Your task to perform on an android device: change the clock style Image 0: 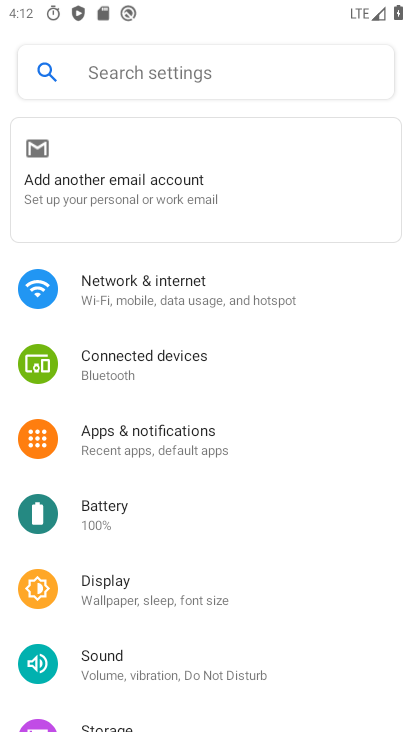
Step 0: press home button
Your task to perform on an android device: change the clock style Image 1: 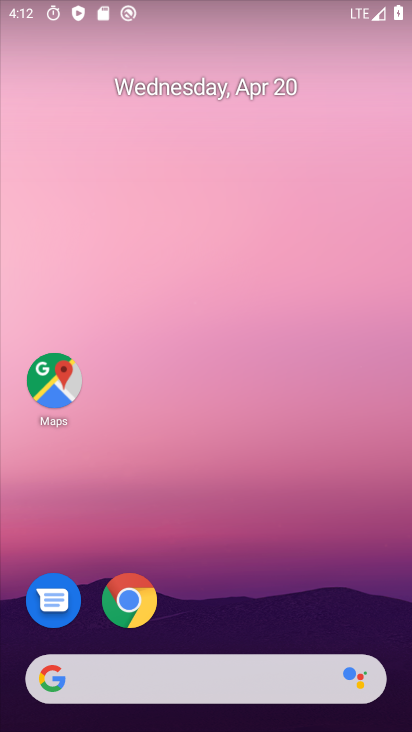
Step 1: drag from (243, 281) to (245, 162)
Your task to perform on an android device: change the clock style Image 2: 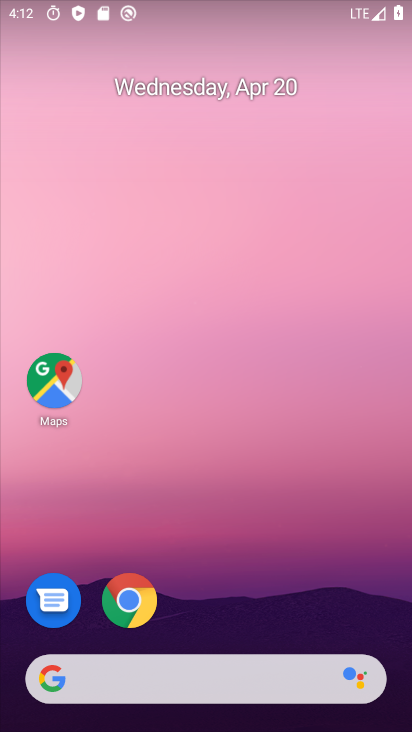
Step 2: drag from (262, 509) to (287, 87)
Your task to perform on an android device: change the clock style Image 3: 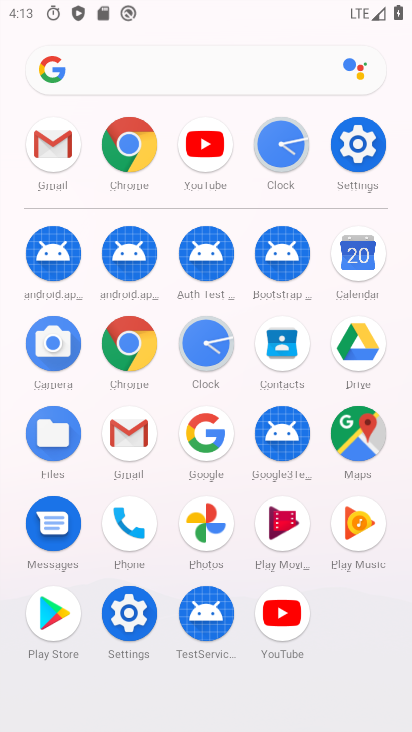
Step 3: click (266, 141)
Your task to perform on an android device: change the clock style Image 4: 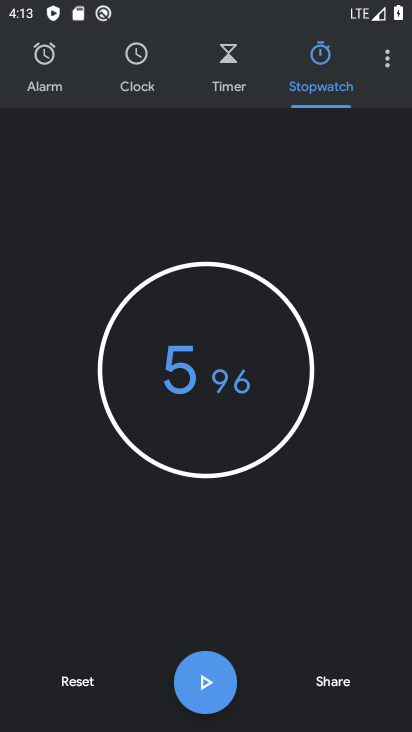
Step 4: click (387, 65)
Your task to perform on an android device: change the clock style Image 5: 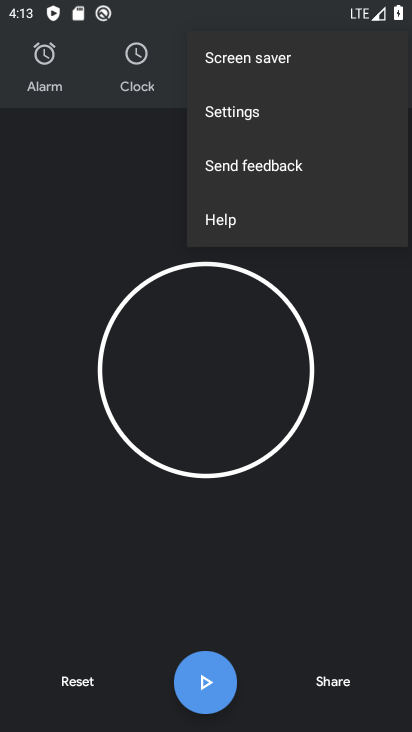
Step 5: click (243, 113)
Your task to perform on an android device: change the clock style Image 6: 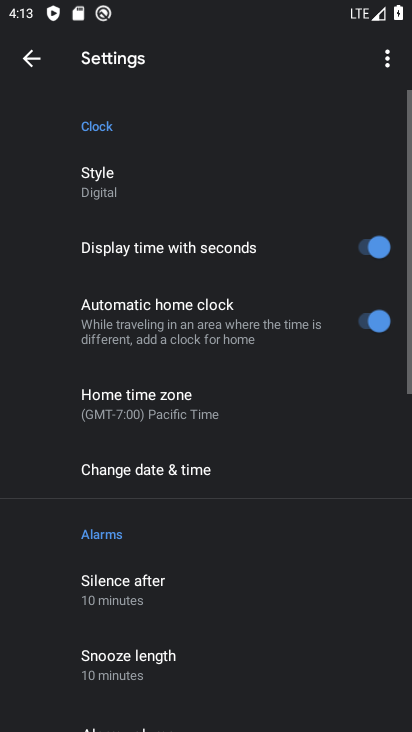
Step 6: click (114, 177)
Your task to perform on an android device: change the clock style Image 7: 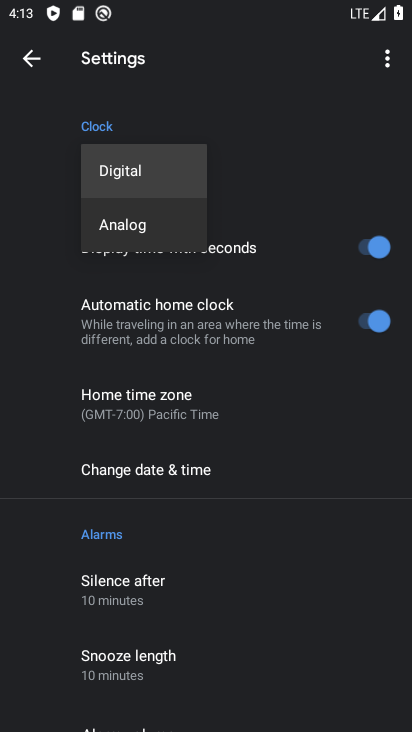
Step 7: click (186, 223)
Your task to perform on an android device: change the clock style Image 8: 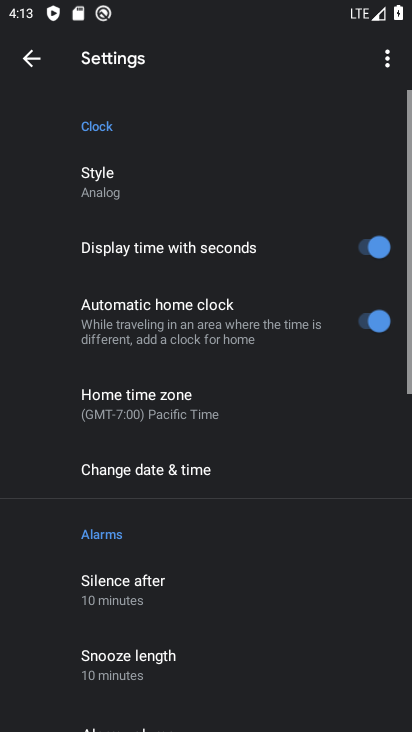
Step 8: task complete